Your task to perform on an android device: turn on data saver in the chrome app Image 0: 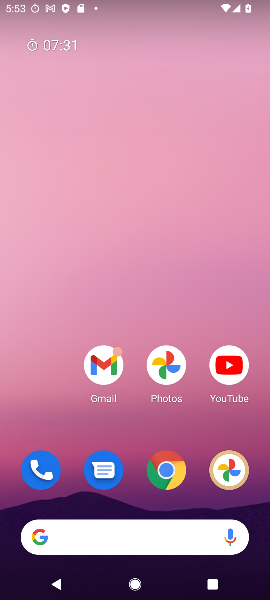
Step 0: drag from (231, 9) to (220, 458)
Your task to perform on an android device: turn on data saver in the chrome app Image 1: 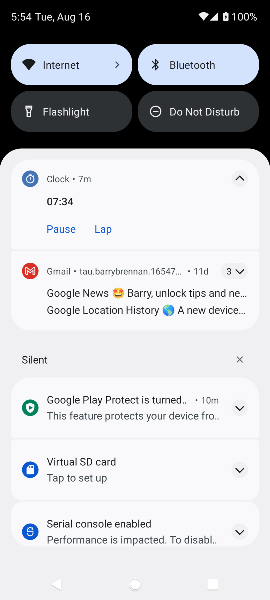
Step 1: press home button
Your task to perform on an android device: turn on data saver in the chrome app Image 2: 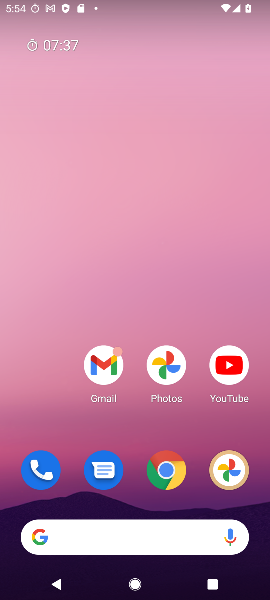
Step 2: click (155, 480)
Your task to perform on an android device: turn on data saver in the chrome app Image 3: 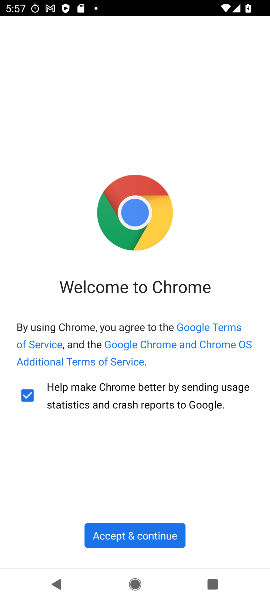
Step 3: click (149, 544)
Your task to perform on an android device: turn on data saver in the chrome app Image 4: 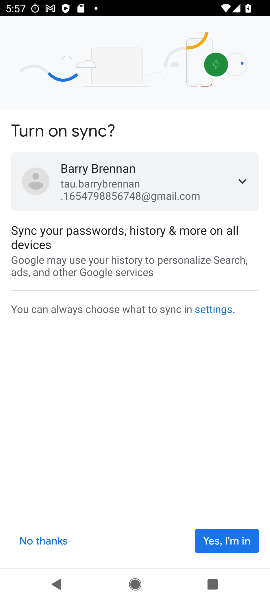
Step 4: click (252, 553)
Your task to perform on an android device: turn on data saver in the chrome app Image 5: 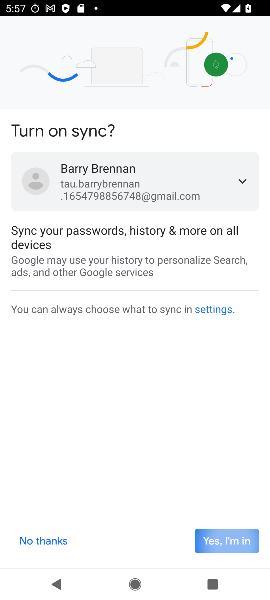
Step 5: click (252, 553)
Your task to perform on an android device: turn on data saver in the chrome app Image 6: 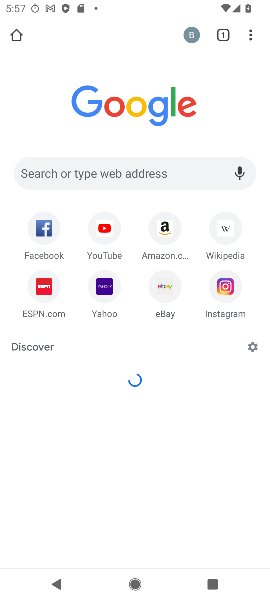
Step 6: drag from (244, 30) to (115, 331)
Your task to perform on an android device: turn on data saver in the chrome app Image 7: 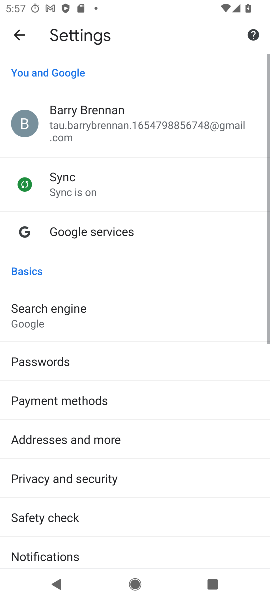
Step 7: drag from (70, 545) to (74, 187)
Your task to perform on an android device: turn on data saver in the chrome app Image 8: 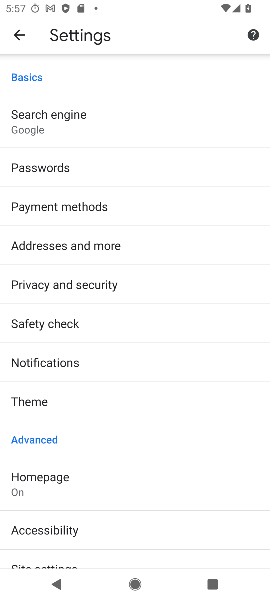
Step 8: drag from (45, 545) to (127, 77)
Your task to perform on an android device: turn on data saver in the chrome app Image 9: 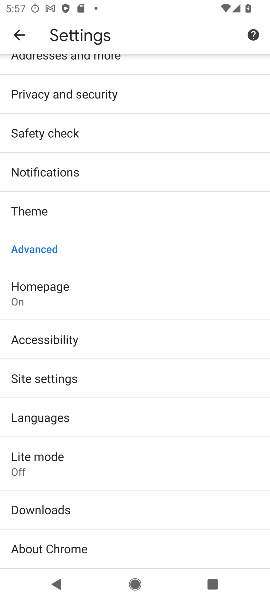
Step 9: click (55, 466)
Your task to perform on an android device: turn on data saver in the chrome app Image 10: 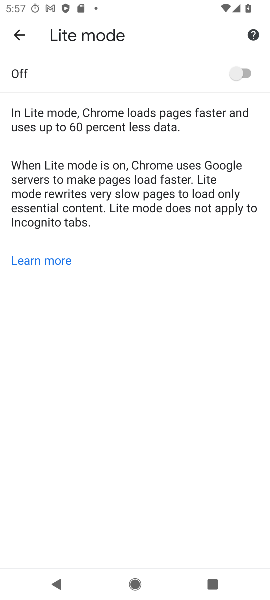
Step 10: click (179, 73)
Your task to perform on an android device: turn on data saver in the chrome app Image 11: 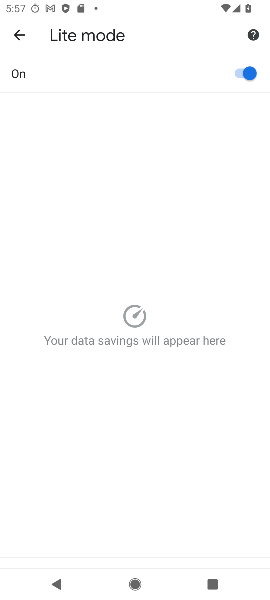
Step 11: task complete